Your task to perform on an android device: turn off data saver in the chrome app Image 0: 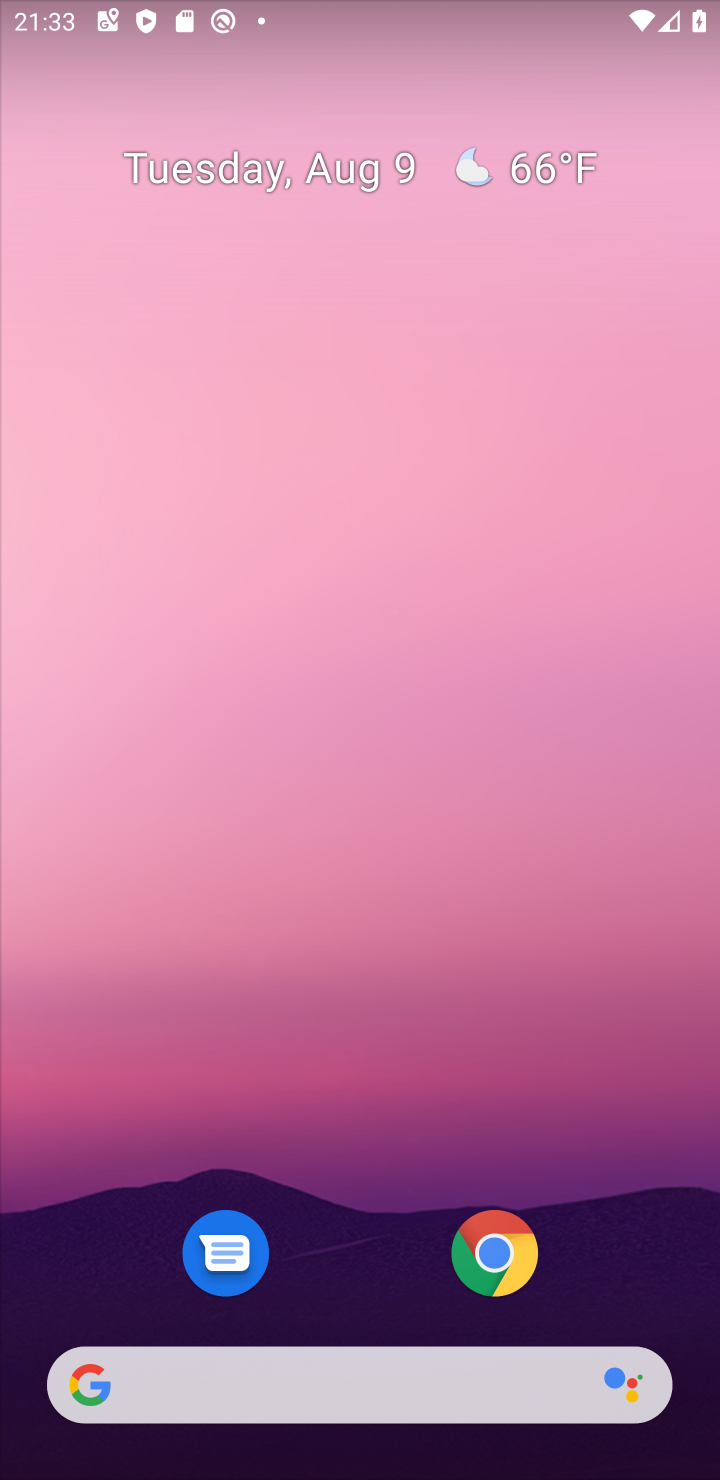
Step 0: click (491, 1266)
Your task to perform on an android device: turn off data saver in the chrome app Image 1: 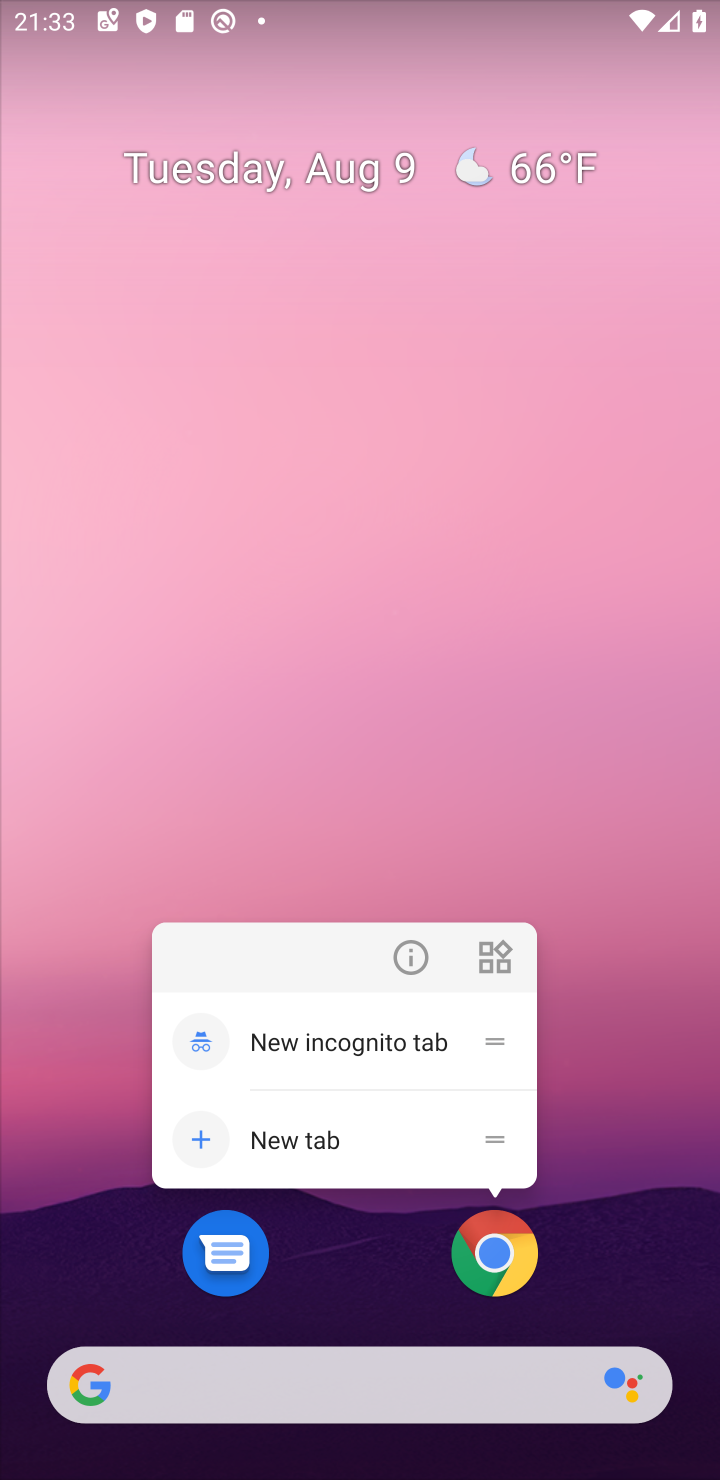
Step 1: click (590, 1272)
Your task to perform on an android device: turn off data saver in the chrome app Image 2: 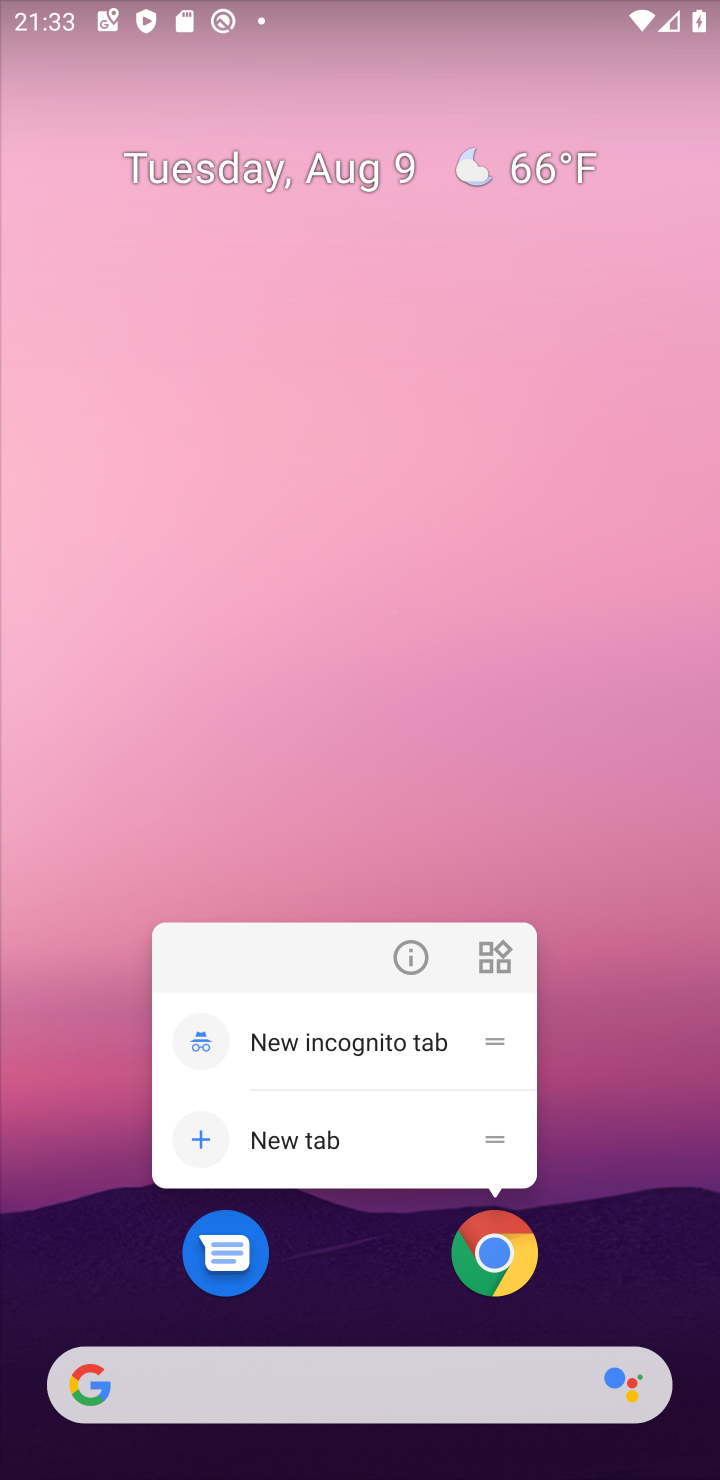
Step 2: drag from (601, 1180) to (570, 11)
Your task to perform on an android device: turn off data saver in the chrome app Image 3: 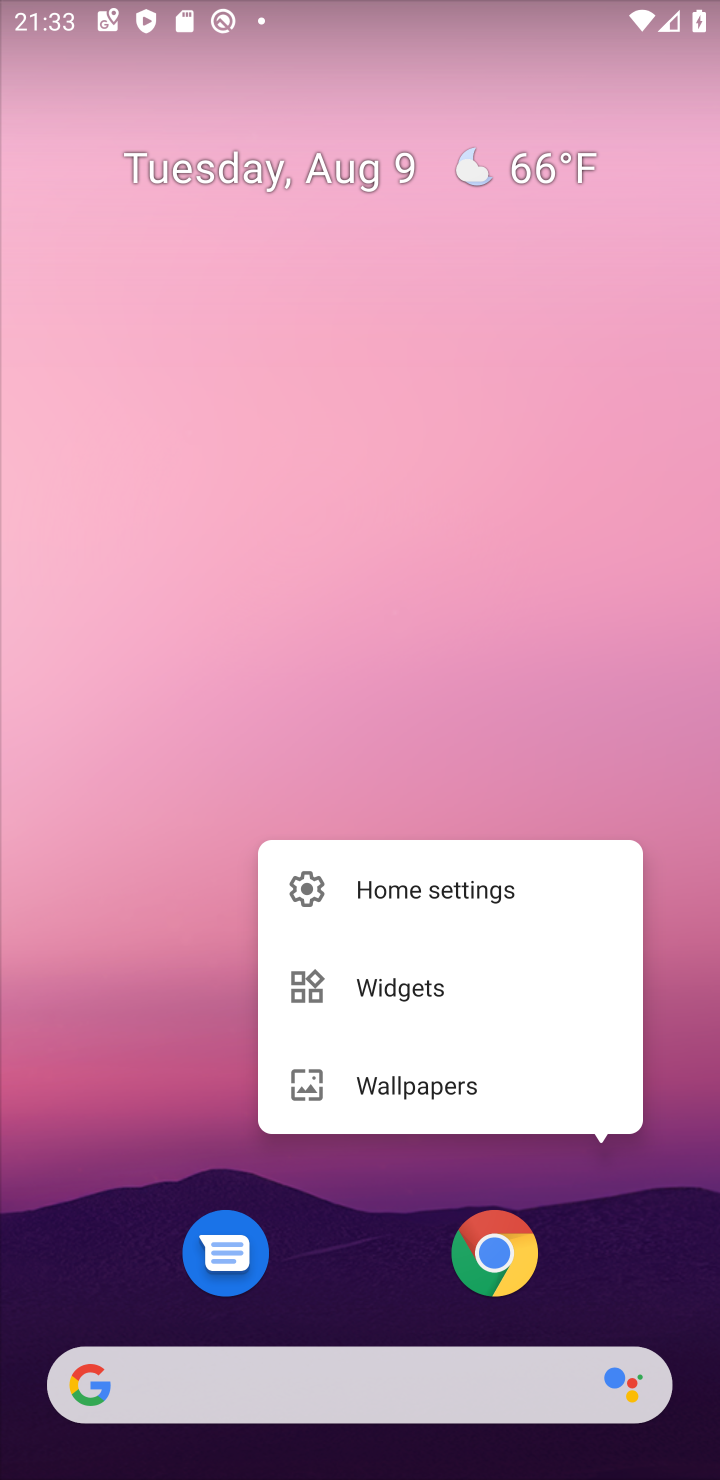
Step 3: click (536, 693)
Your task to perform on an android device: turn off data saver in the chrome app Image 4: 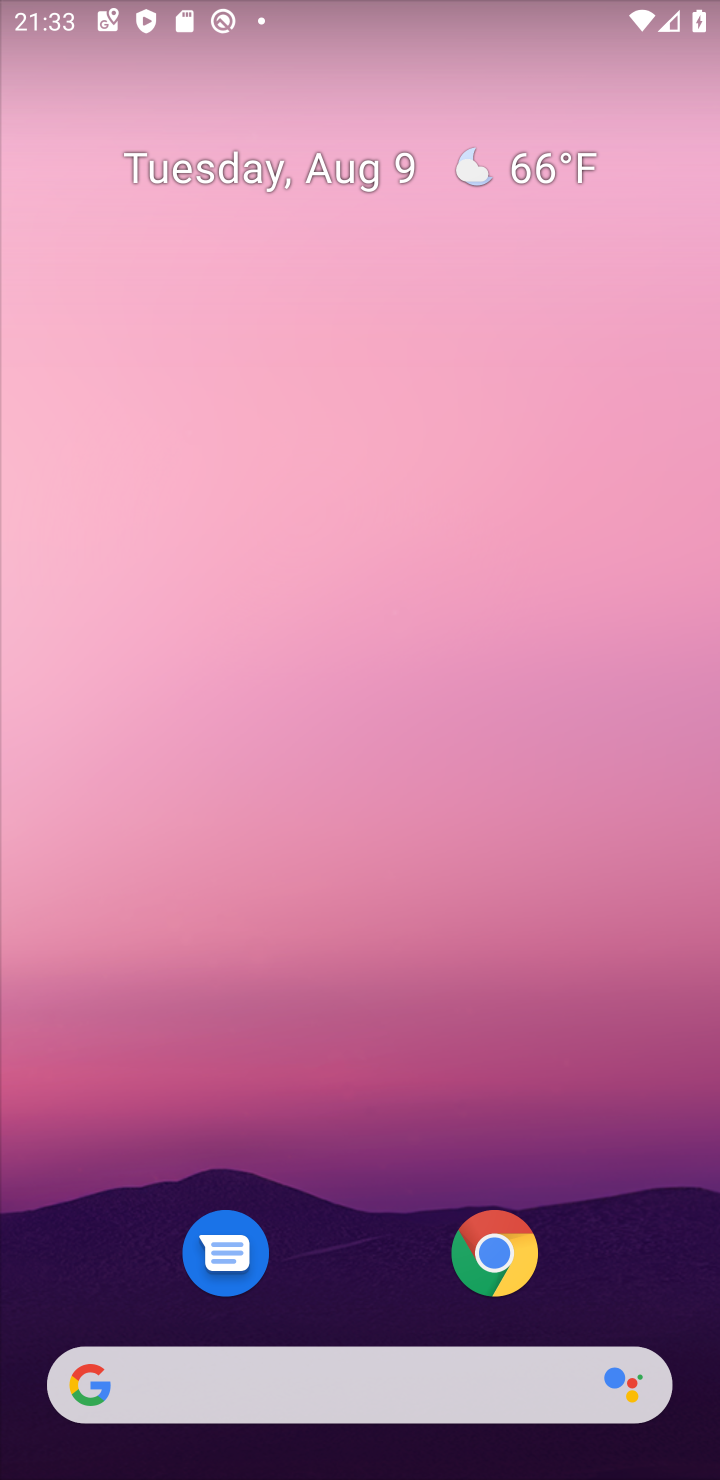
Step 4: drag from (306, 1271) to (450, 106)
Your task to perform on an android device: turn off data saver in the chrome app Image 5: 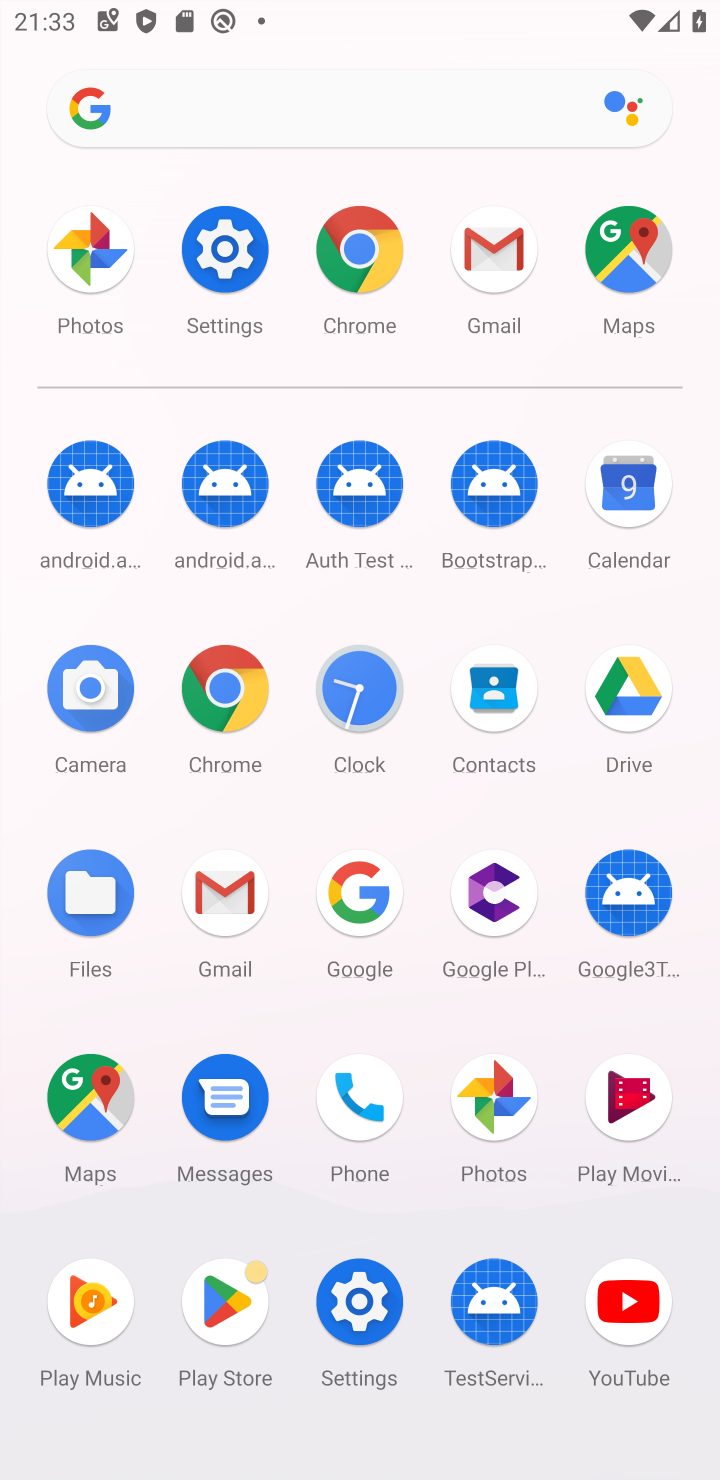
Step 5: click (214, 698)
Your task to perform on an android device: turn off data saver in the chrome app Image 6: 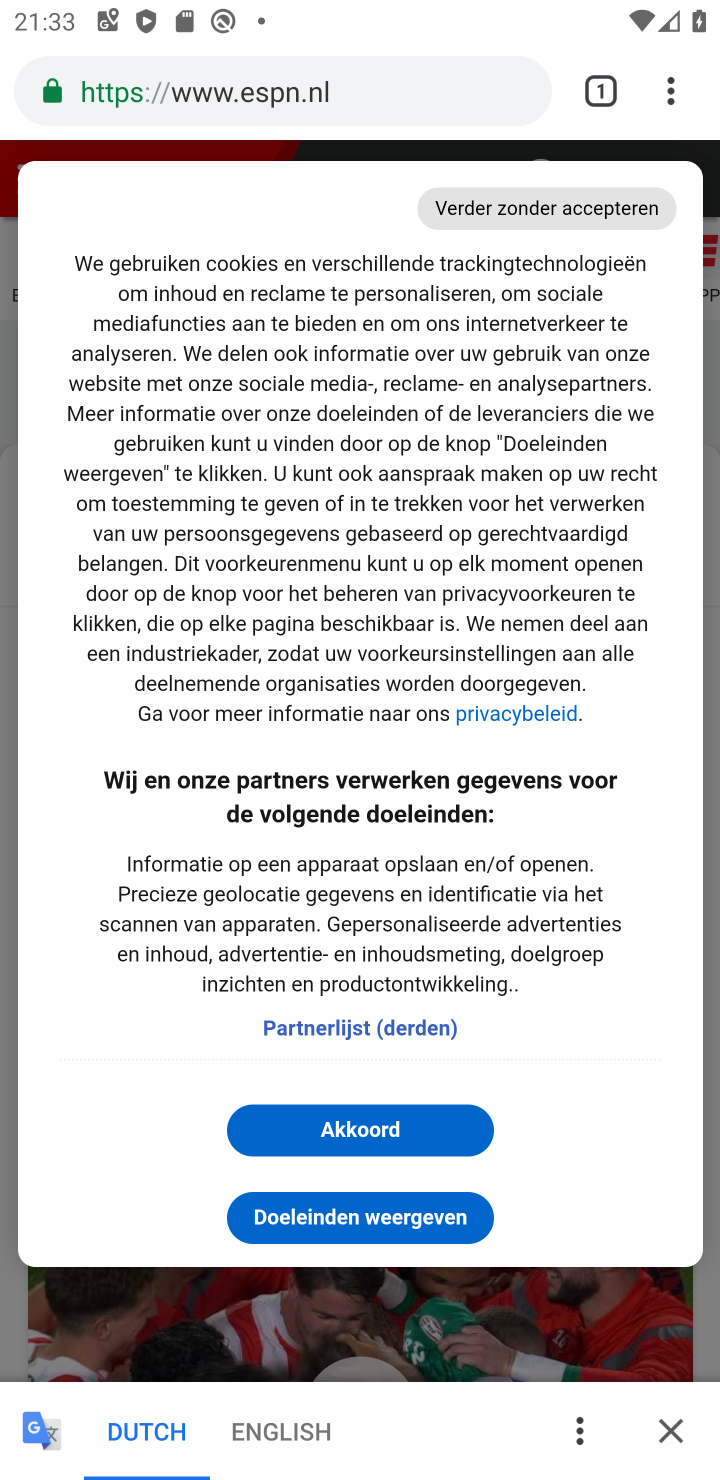
Step 6: drag from (682, 64) to (355, 1115)
Your task to perform on an android device: turn off data saver in the chrome app Image 7: 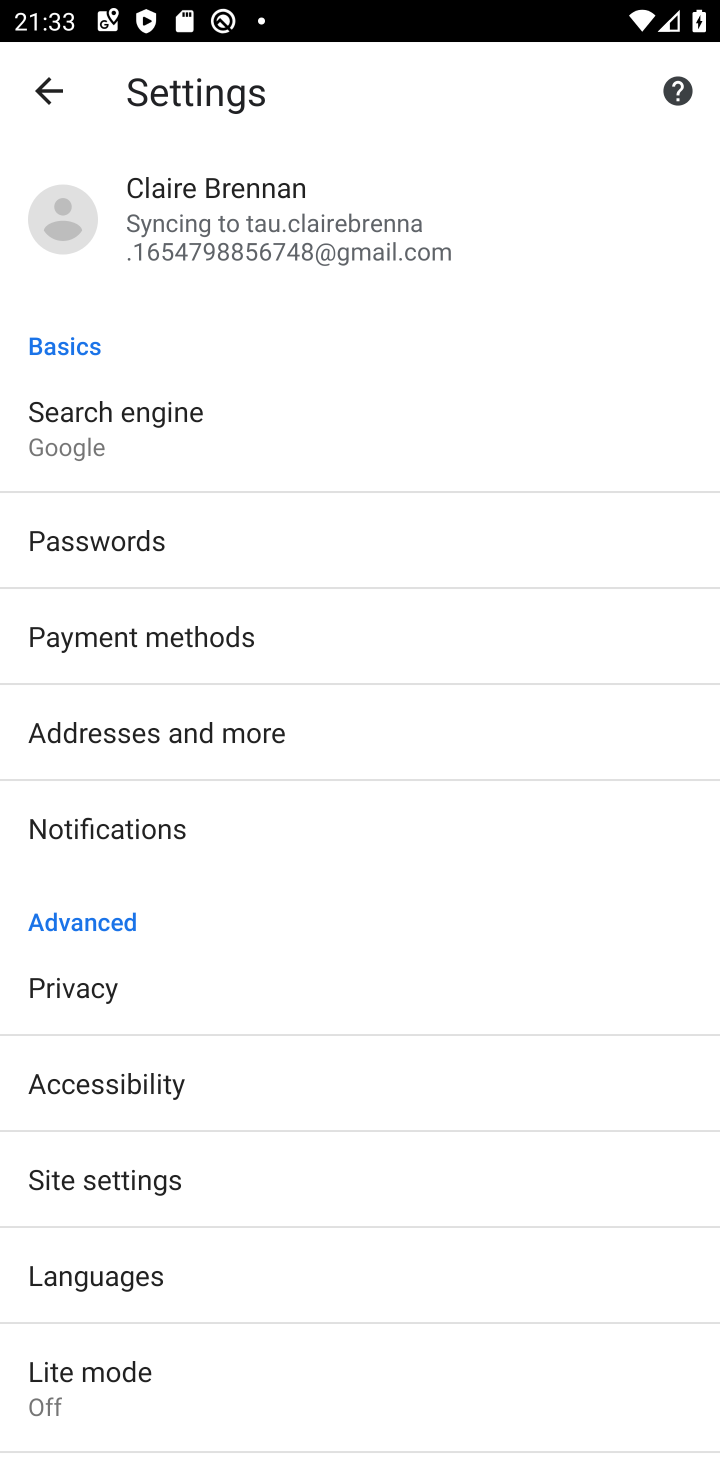
Step 7: drag from (168, 1373) to (397, 662)
Your task to perform on an android device: turn off data saver in the chrome app Image 8: 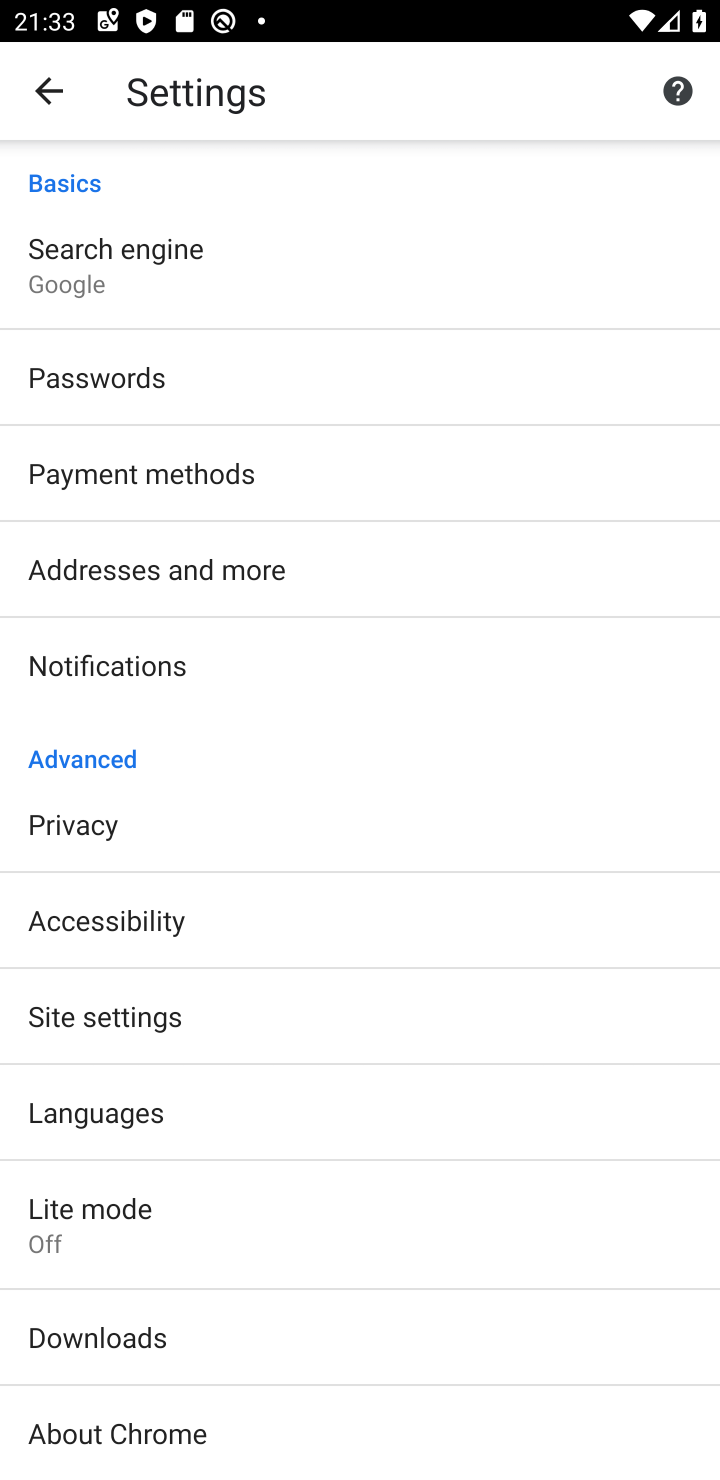
Step 8: click (74, 1235)
Your task to perform on an android device: turn off data saver in the chrome app Image 9: 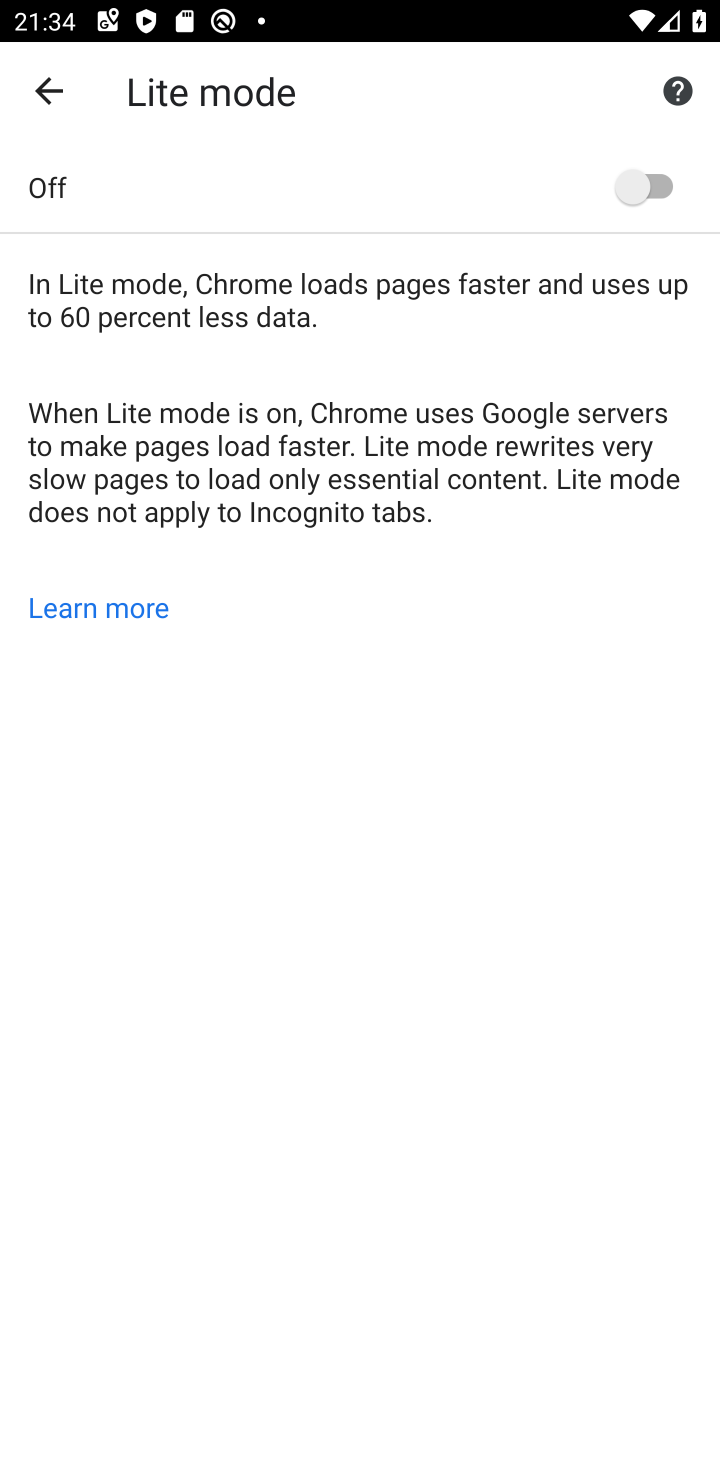
Step 9: task complete